Your task to perform on an android device: open the mobile data screen to see how much data has been used Image 0: 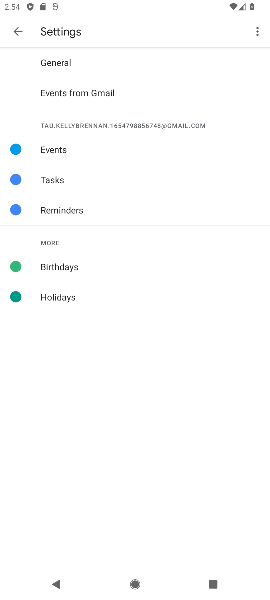
Step 0: press home button
Your task to perform on an android device: open the mobile data screen to see how much data has been used Image 1: 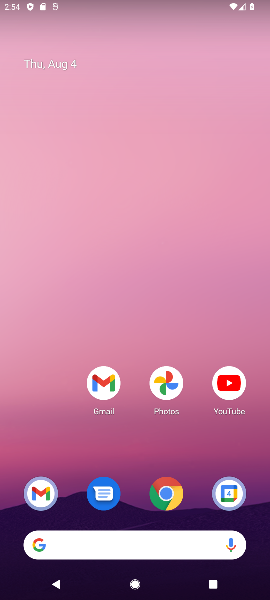
Step 1: drag from (113, 531) to (146, 46)
Your task to perform on an android device: open the mobile data screen to see how much data has been used Image 2: 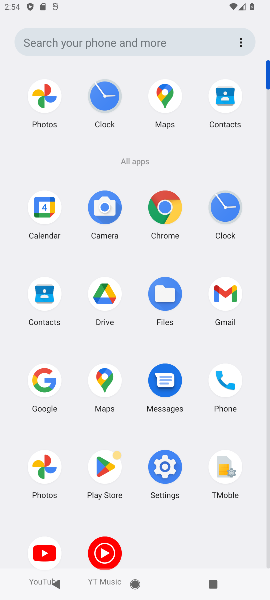
Step 2: click (152, 465)
Your task to perform on an android device: open the mobile data screen to see how much data has been used Image 3: 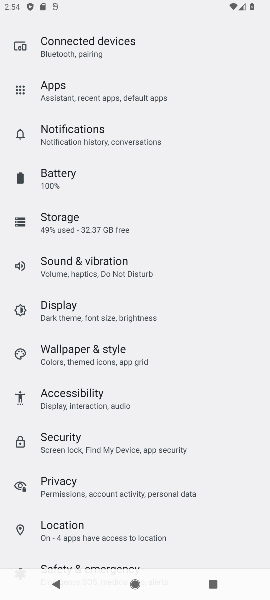
Step 3: drag from (64, 30) to (124, 258)
Your task to perform on an android device: open the mobile data screen to see how much data has been used Image 4: 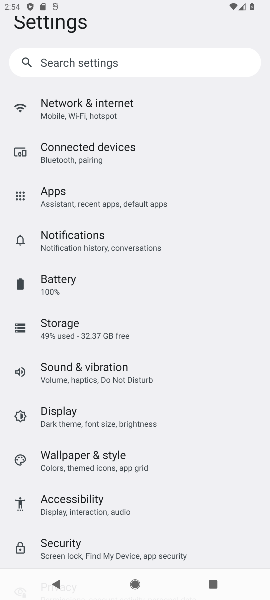
Step 4: click (53, 101)
Your task to perform on an android device: open the mobile data screen to see how much data has been used Image 5: 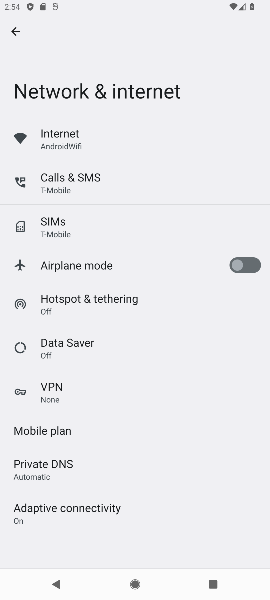
Step 5: click (47, 132)
Your task to perform on an android device: open the mobile data screen to see how much data has been used Image 6: 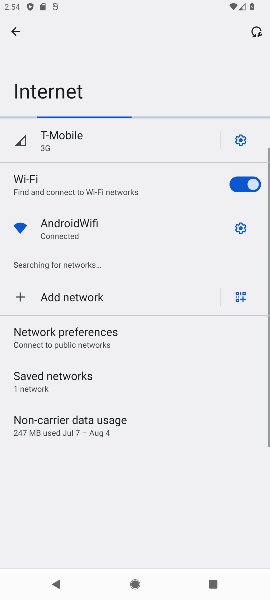
Step 6: click (61, 418)
Your task to perform on an android device: open the mobile data screen to see how much data has been used Image 7: 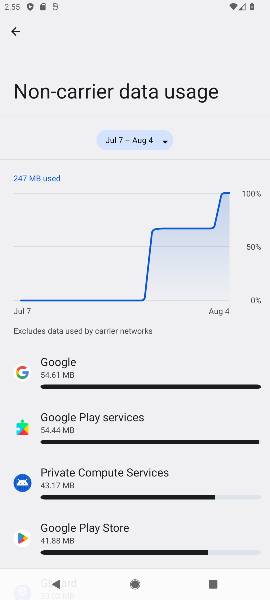
Step 7: task complete